Your task to perform on an android device: add a contact in the contacts app Image 0: 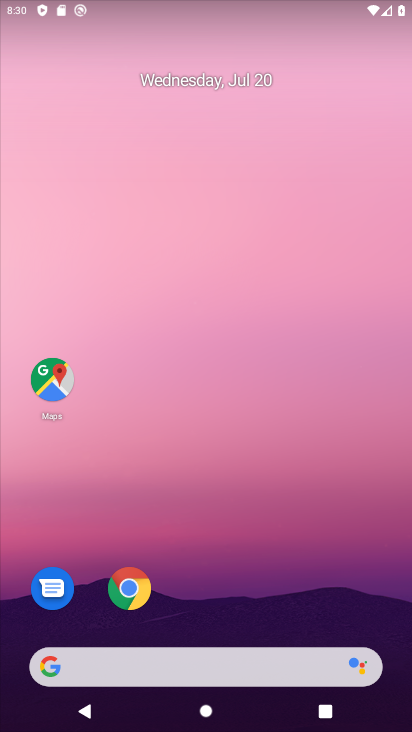
Step 0: drag from (214, 618) to (142, 51)
Your task to perform on an android device: add a contact in the contacts app Image 1: 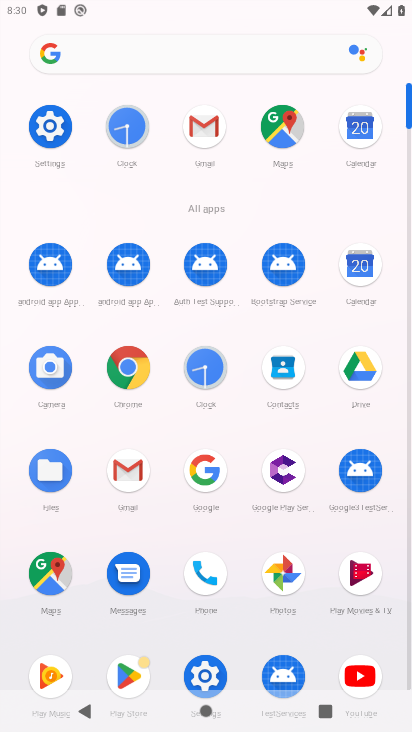
Step 1: click (285, 369)
Your task to perform on an android device: add a contact in the contacts app Image 2: 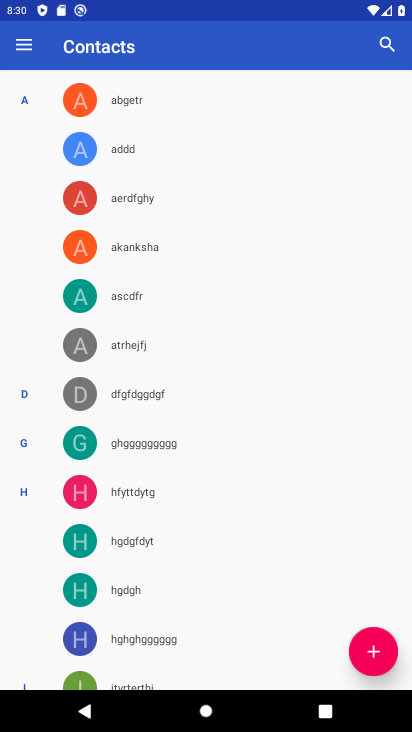
Step 2: drag from (213, 143) to (160, 470)
Your task to perform on an android device: add a contact in the contacts app Image 3: 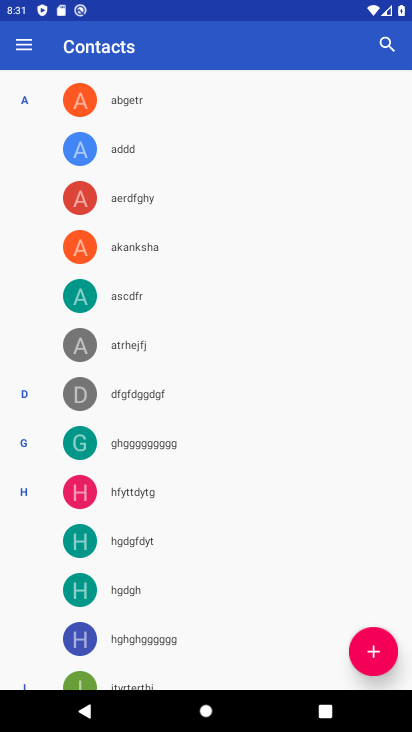
Step 3: click (372, 648)
Your task to perform on an android device: add a contact in the contacts app Image 4: 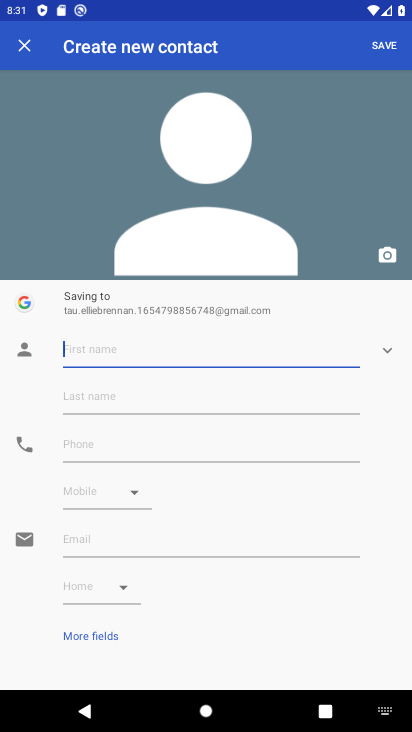
Step 4: type "jj"
Your task to perform on an android device: add a contact in the contacts app Image 5: 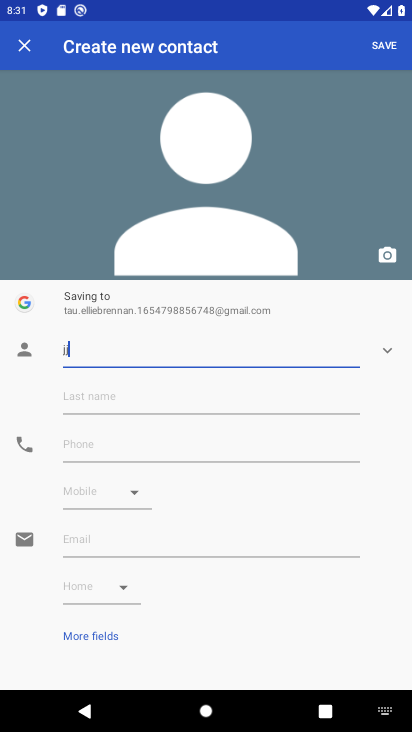
Step 5: click (203, 460)
Your task to perform on an android device: add a contact in the contacts app Image 6: 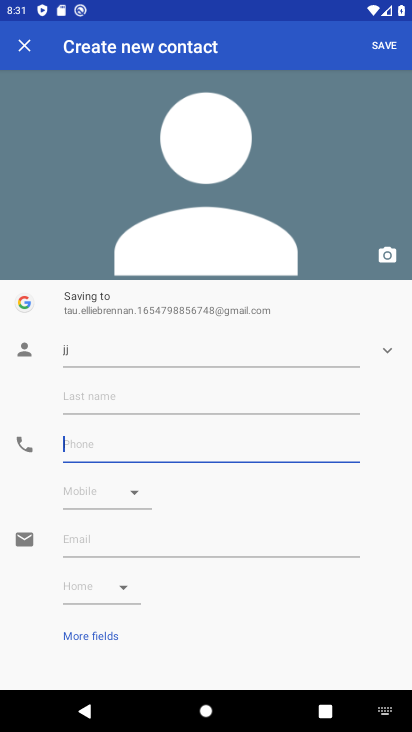
Step 6: type "67898"
Your task to perform on an android device: add a contact in the contacts app Image 7: 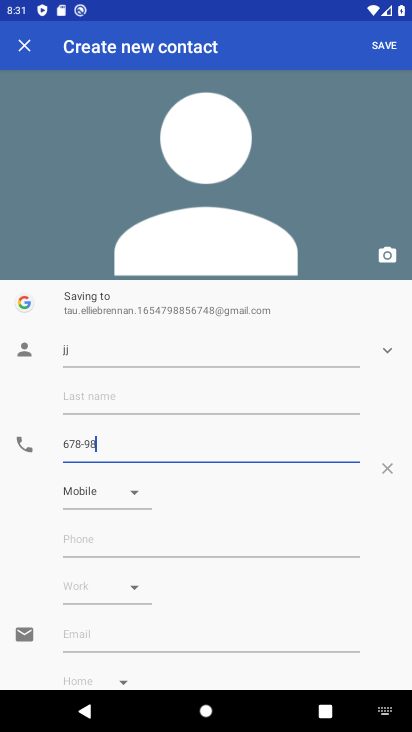
Step 7: click (388, 40)
Your task to perform on an android device: add a contact in the contacts app Image 8: 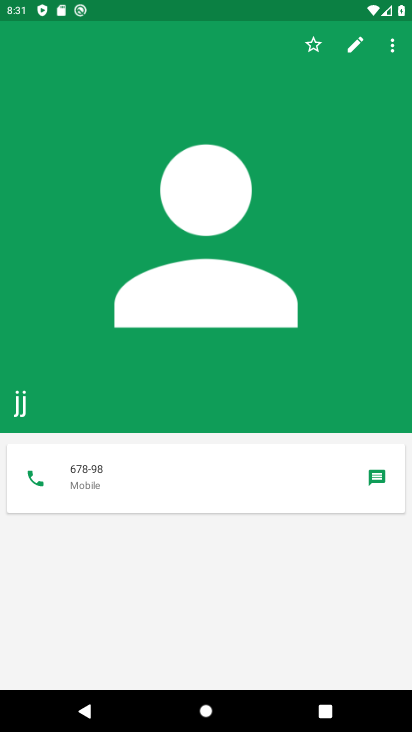
Step 8: task complete